Your task to perform on an android device: Search for logitech g910 on bestbuy.com, select the first entry, and add it to the cart. Image 0: 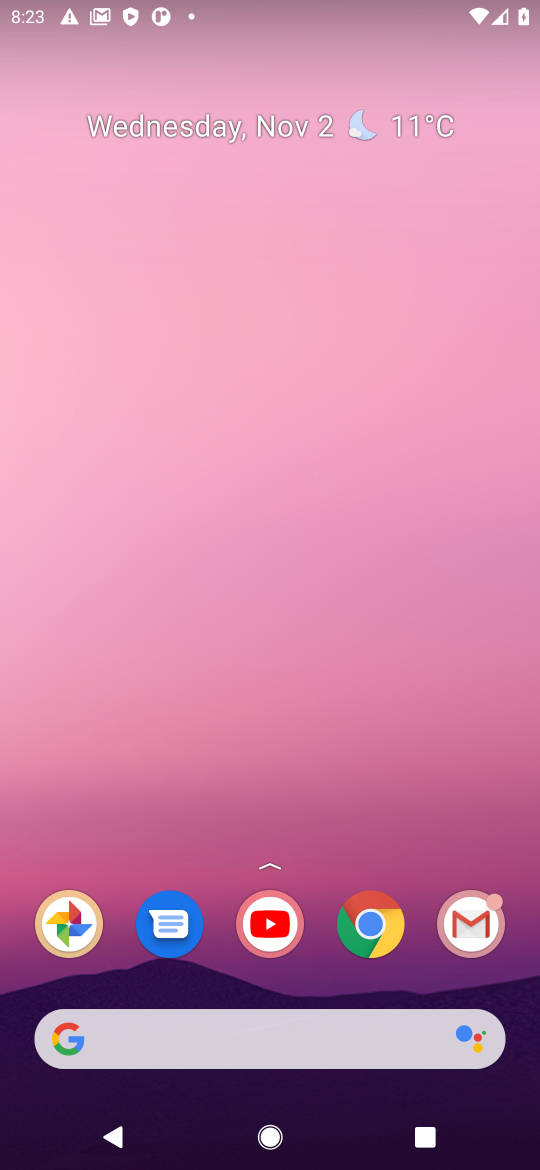
Step 0: click (372, 897)
Your task to perform on an android device: Search for logitech g910 on bestbuy.com, select the first entry, and add it to the cart. Image 1: 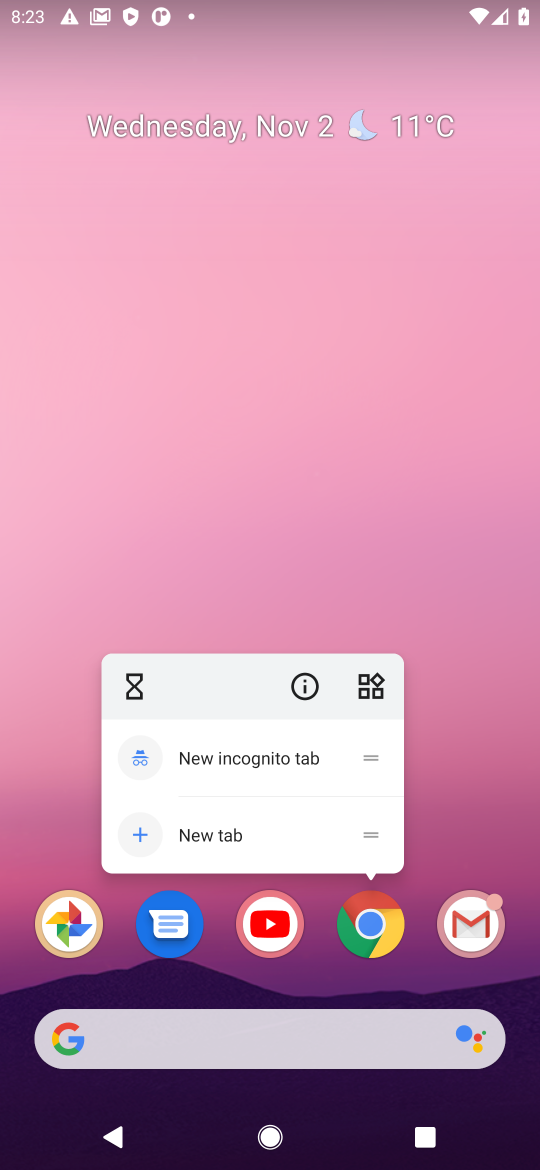
Step 1: click (358, 931)
Your task to perform on an android device: Search for logitech g910 on bestbuy.com, select the first entry, and add it to the cart. Image 2: 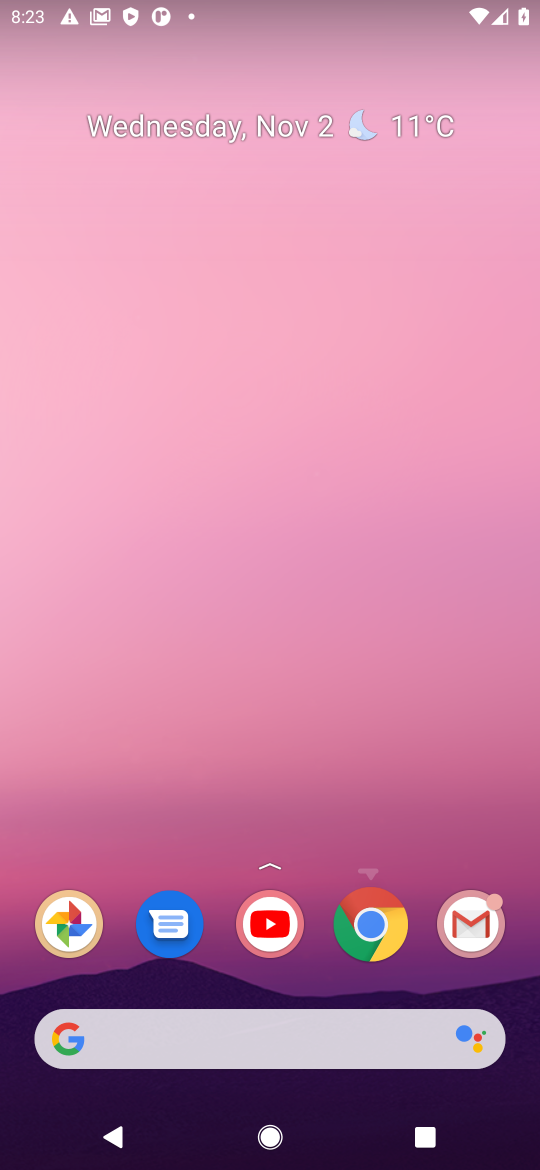
Step 2: click (364, 930)
Your task to perform on an android device: Search for logitech g910 on bestbuy.com, select the first entry, and add it to the cart. Image 3: 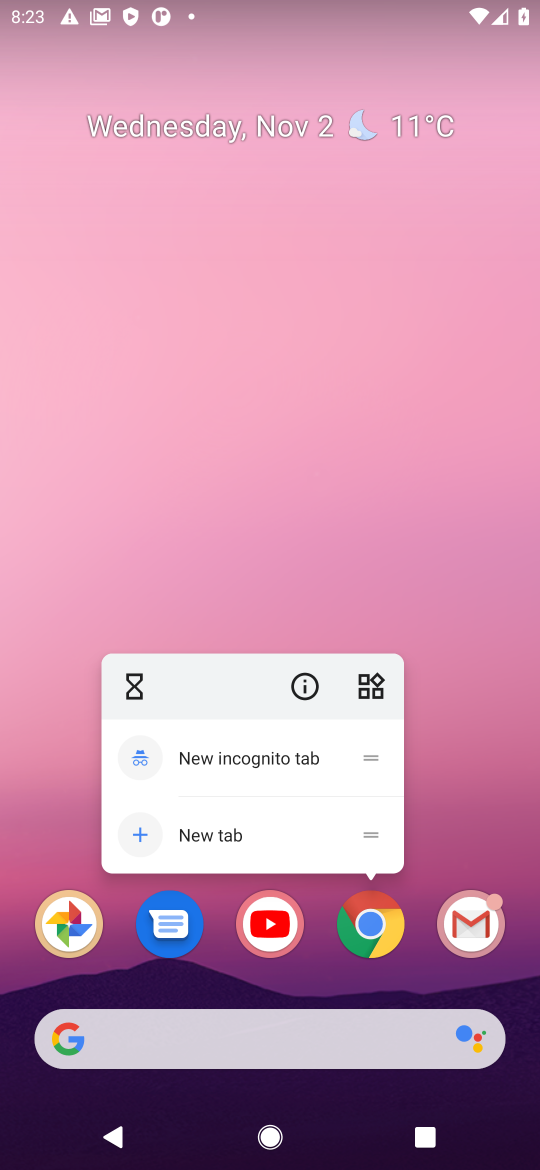
Step 3: click (364, 930)
Your task to perform on an android device: Search for logitech g910 on bestbuy.com, select the first entry, and add it to the cart. Image 4: 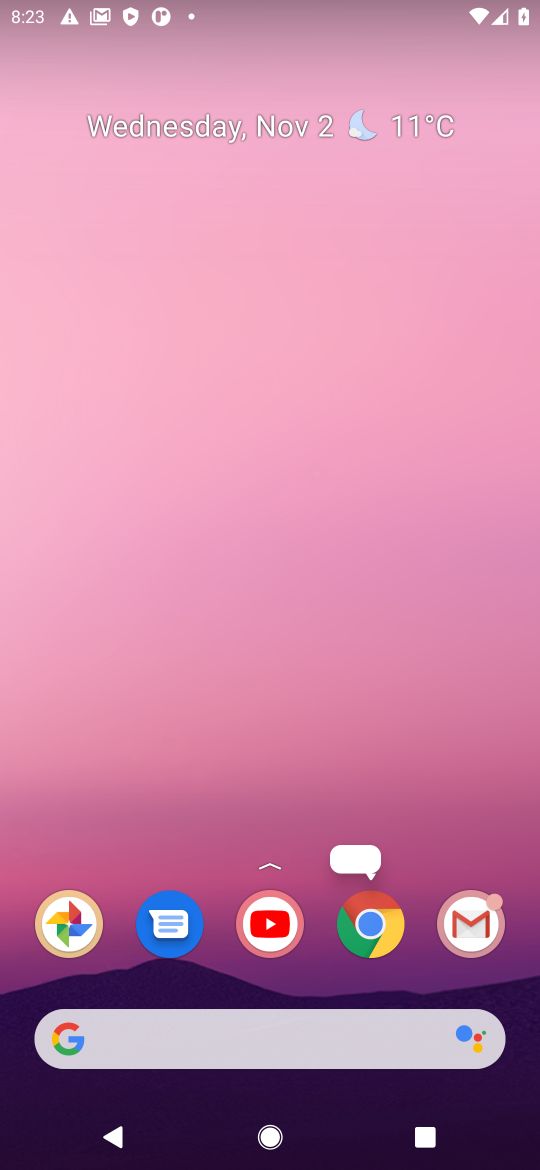
Step 4: click (364, 930)
Your task to perform on an android device: Search for logitech g910 on bestbuy.com, select the first entry, and add it to the cart. Image 5: 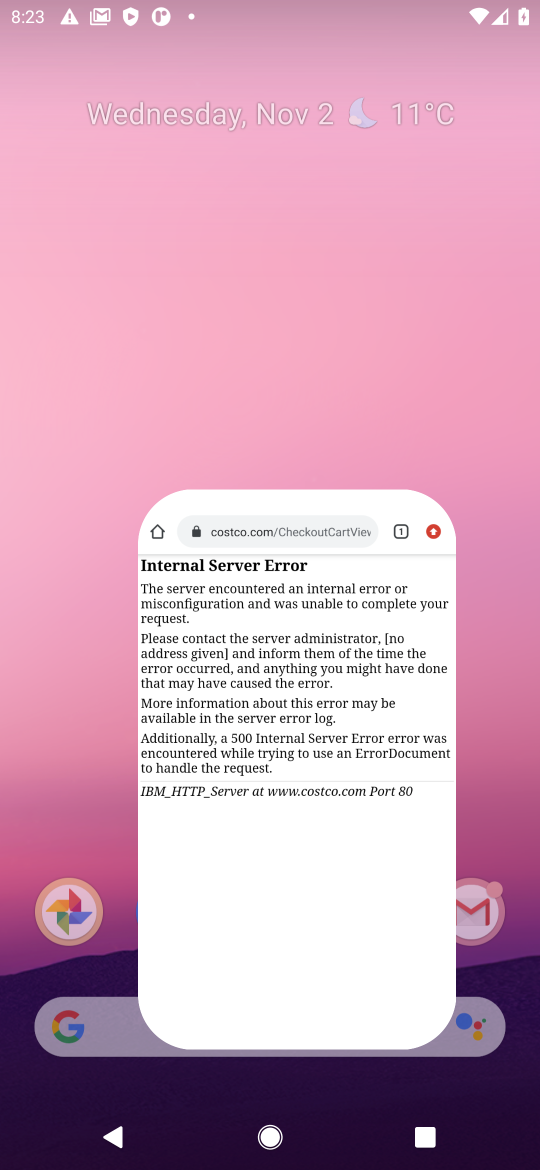
Step 5: click (359, 928)
Your task to perform on an android device: Search for logitech g910 on bestbuy.com, select the first entry, and add it to the cart. Image 6: 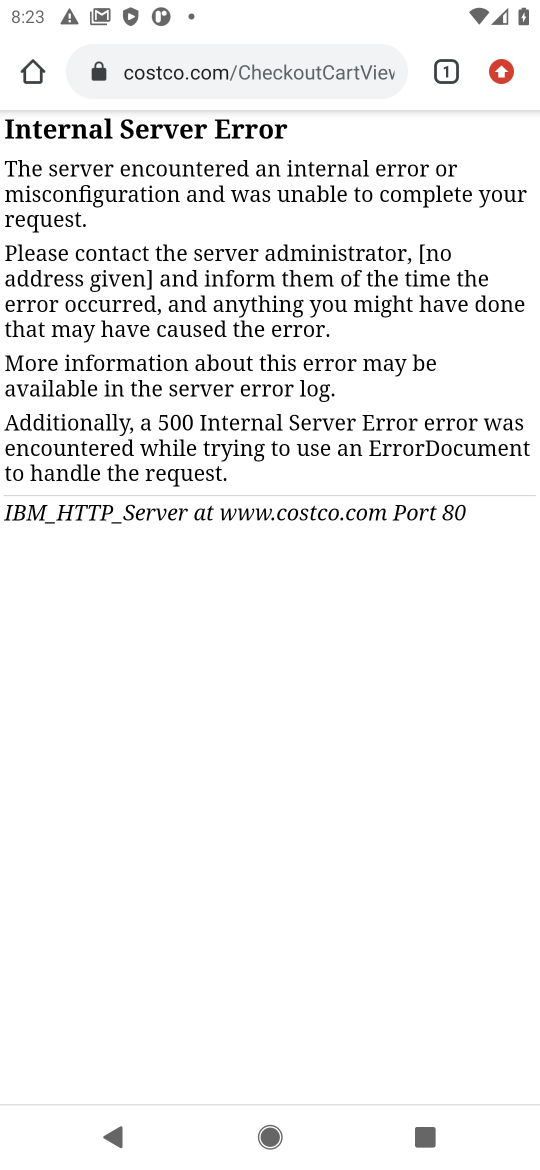
Step 6: click (220, 67)
Your task to perform on an android device: Search for logitech g910 on bestbuy.com, select the first entry, and add it to the cart. Image 7: 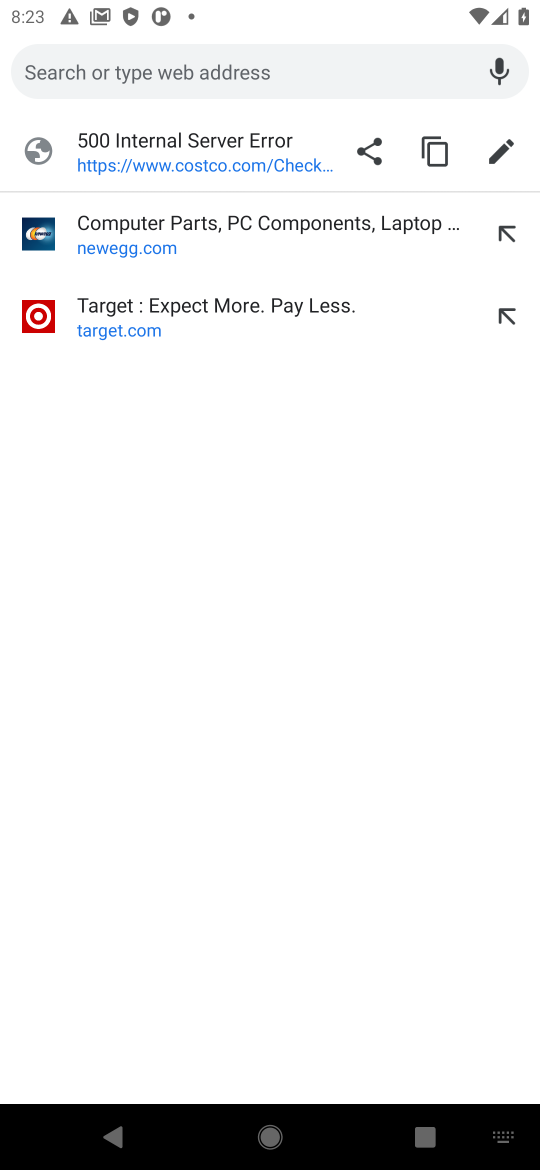
Step 7: type "bestbuy"
Your task to perform on an android device: Search for logitech g910 on bestbuy.com, select the first entry, and add it to the cart. Image 8: 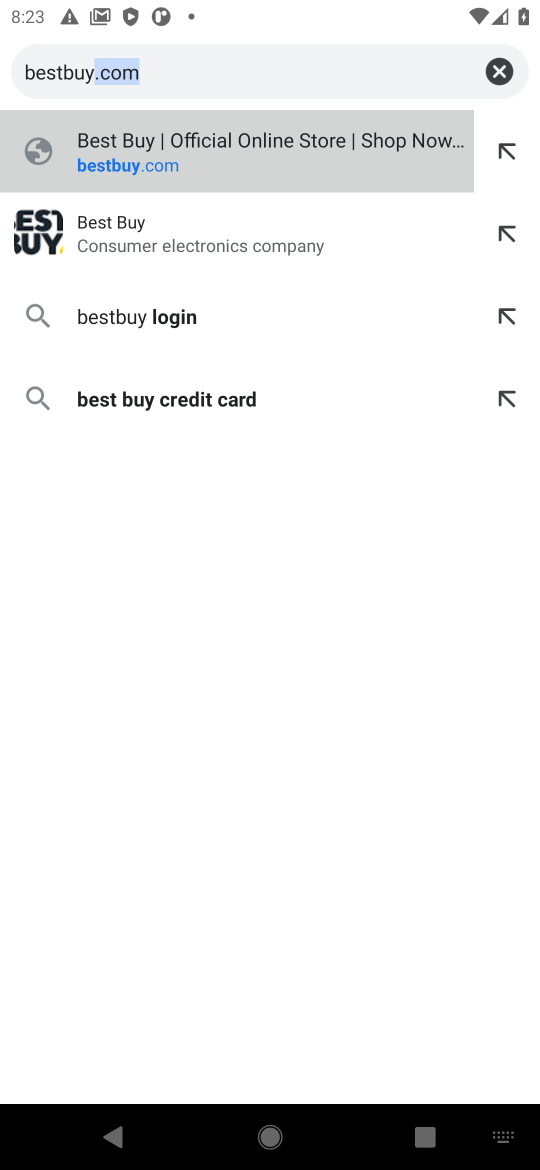
Step 8: type ""
Your task to perform on an android device: Search for logitech g910 on bestbuy.com, select the first entry, and add it to the cart. Image 9: 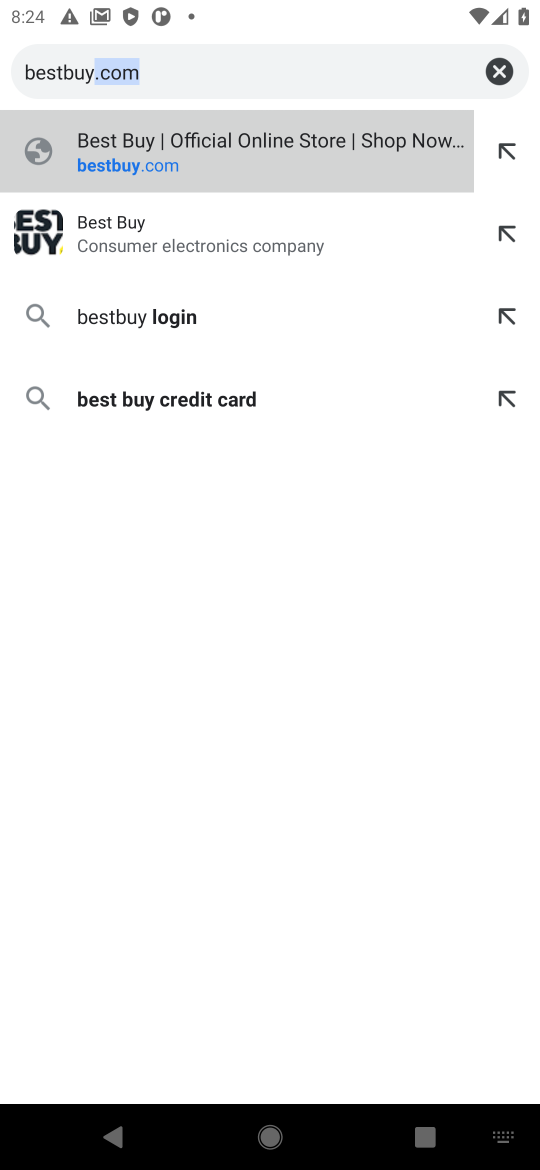
Step 9: click (92, 259)
Your task to perform on an android device: Search for logitech g910 on bestbuy.com, select the first entry, and add it to the cart. Image 10: 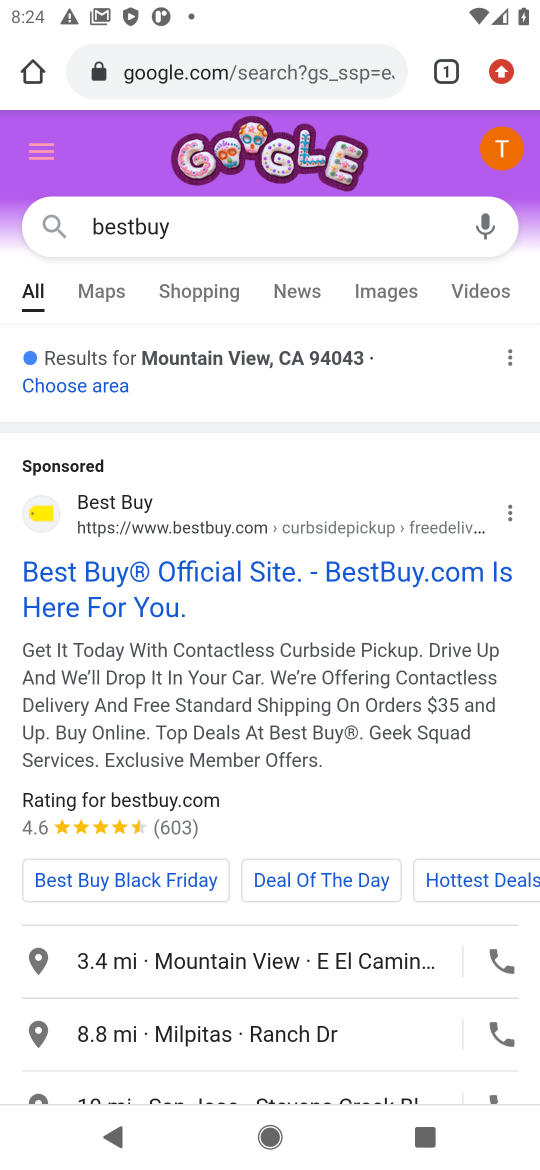
Step 10: drag from (179, 664) to (318, 1)
Your task to perform on an android device: Search for logitech g910 on bestbuy.com, select the first entry, and add it to the cart. Image 11: 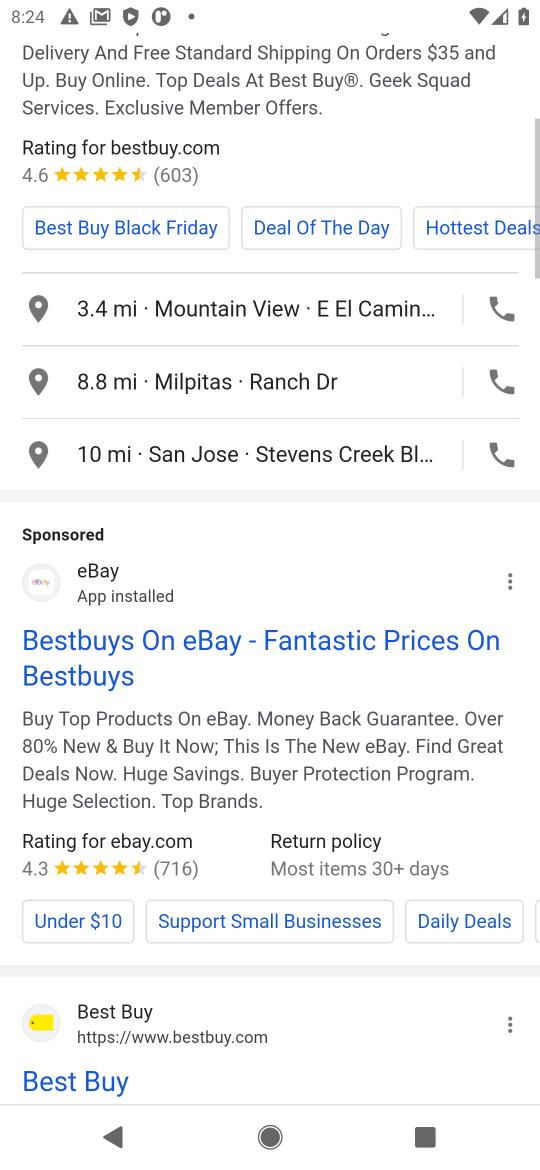
Step 11: click (113, 639)
Your task to perform on an android device: Search for logitech g910 on bestbuy.com, select the first entry, and add it to the cart. Image 12: 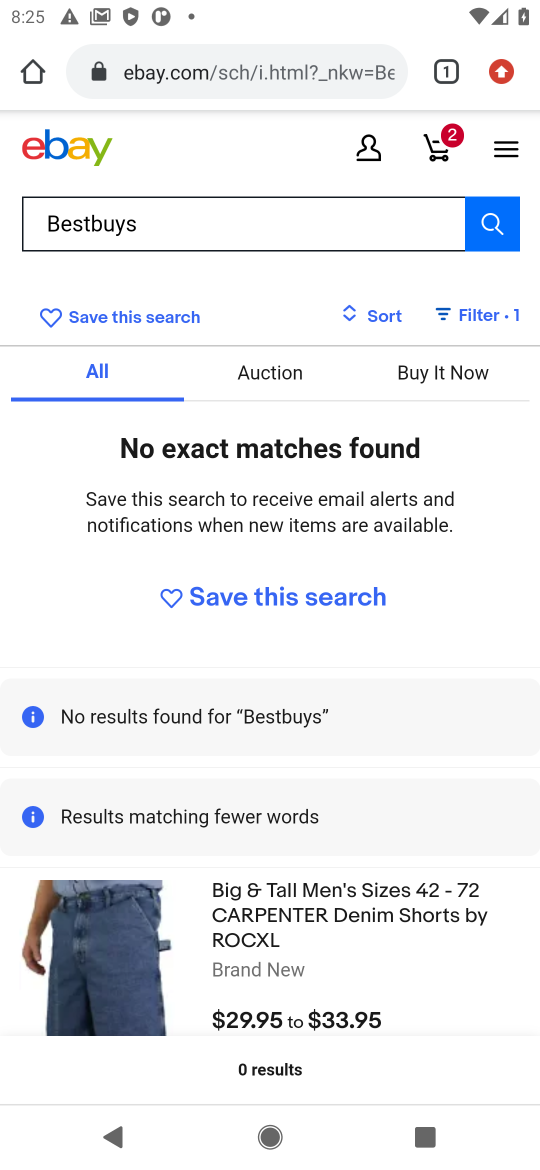
Step 12: click (281, 241)
Your task to perform on an android device: Search for logitech g910 on bestbuy.com, select the first entry, and add it to the cart. Image 13: 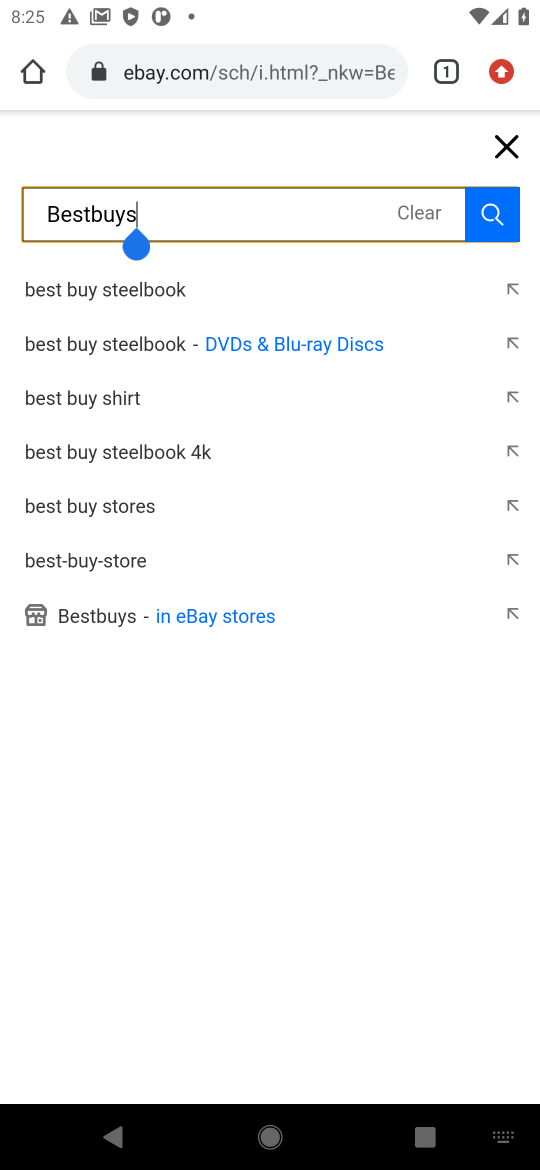
Step 13: click (423, 195)
Your task to perform on an android device: Search for logitech g910 on bestbuy.com, select the first entry, and add it to the cart. Image 14: 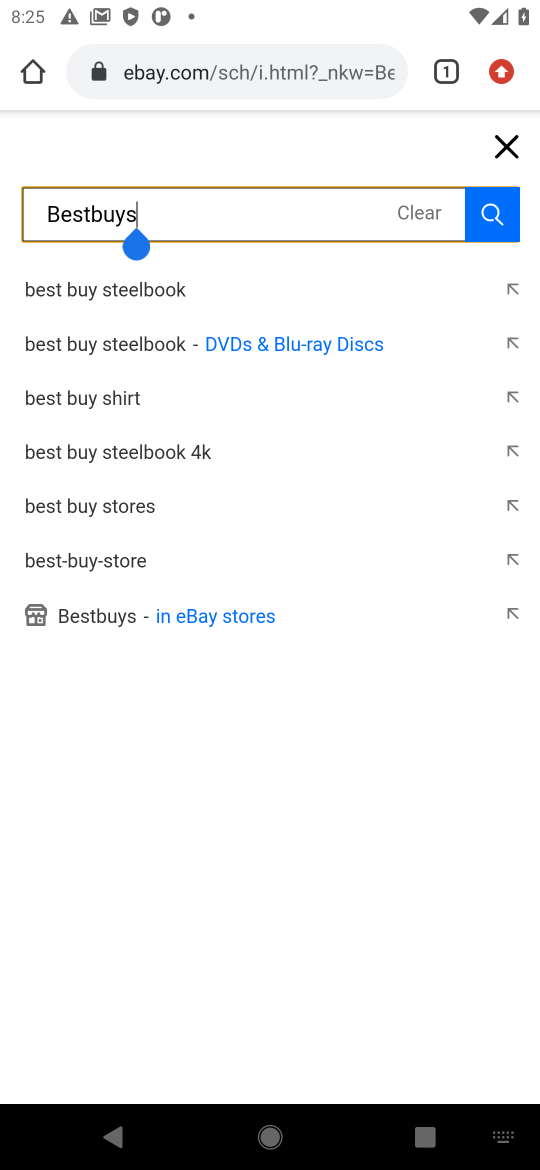
Step 14: click (415, 211)
Your task to perform on an android device: Search for logitech g910 on bestbuy.com, select the first entry, and add it to the cart. Image 15: 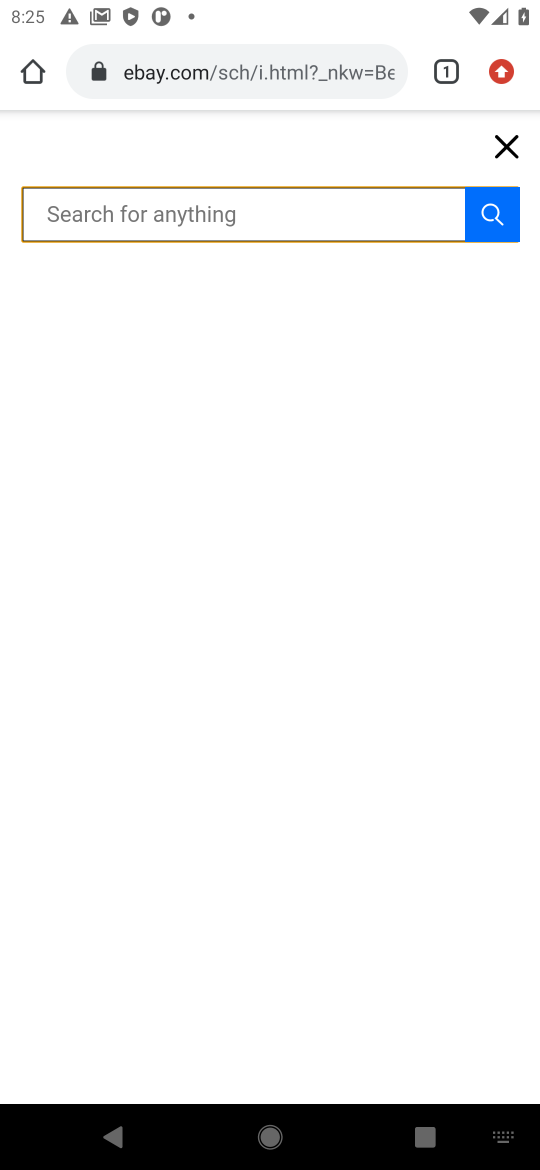
Step 15: click (415, 220)
Your task to perform on an android device: Search for logitech g910 on bestbuy.com, select the first entry, and add it to the cart. Image 16: 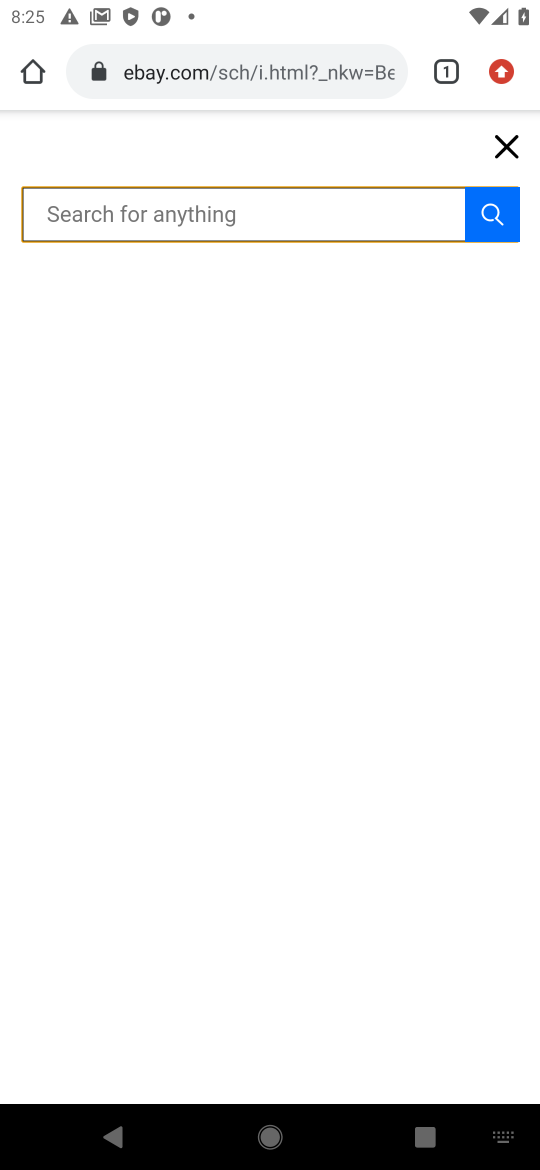
Step 16: type "logitech g 910"
Your task to perform on an android device: Search for logitech g910 on bestbuy.com, select the first entry, and add it to the cart. Image 17: 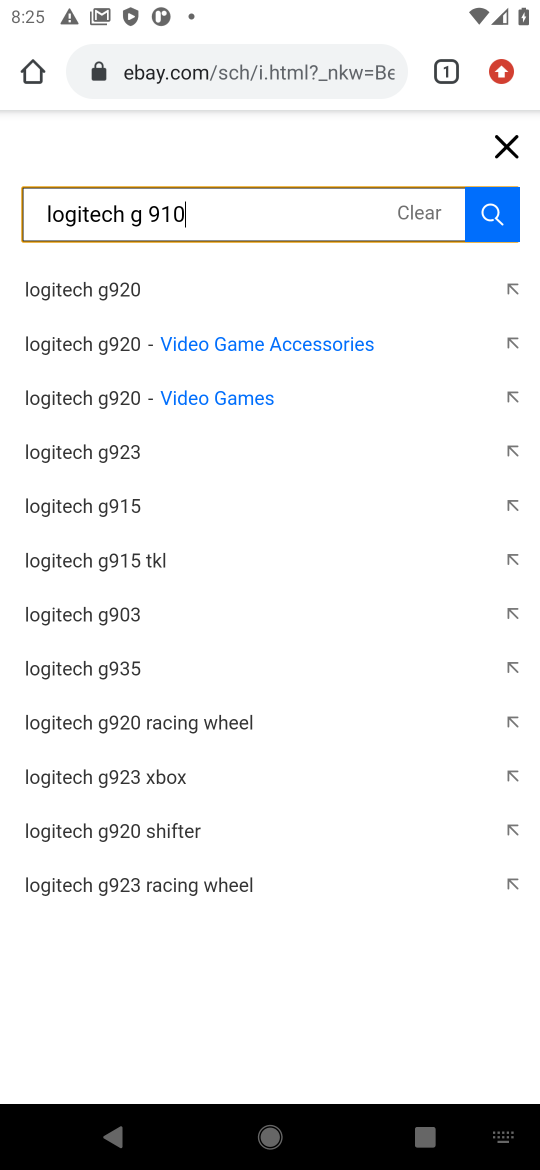
Step 17: type ""
Your task to perform on an android device: Search for logitech g910 on bestbuy.com, select the first entry, and add it to the cart. Image 18: 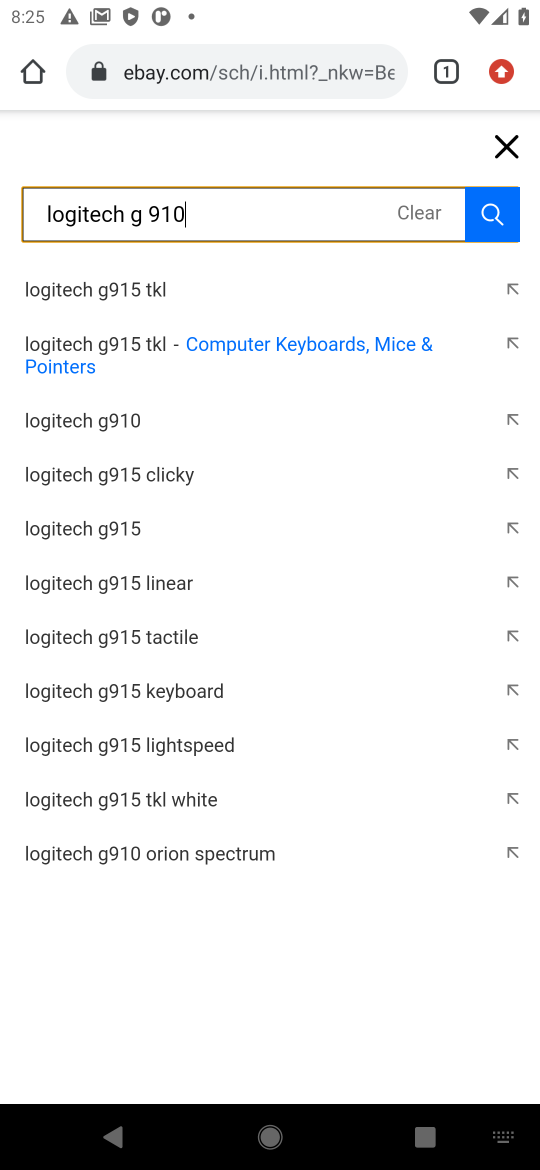
Step 18: click (57, 412)
Your task to perform on an android device: Search for logitech g910 on bestbuy.com, select the first entry, and add it to the cart. Image 19: 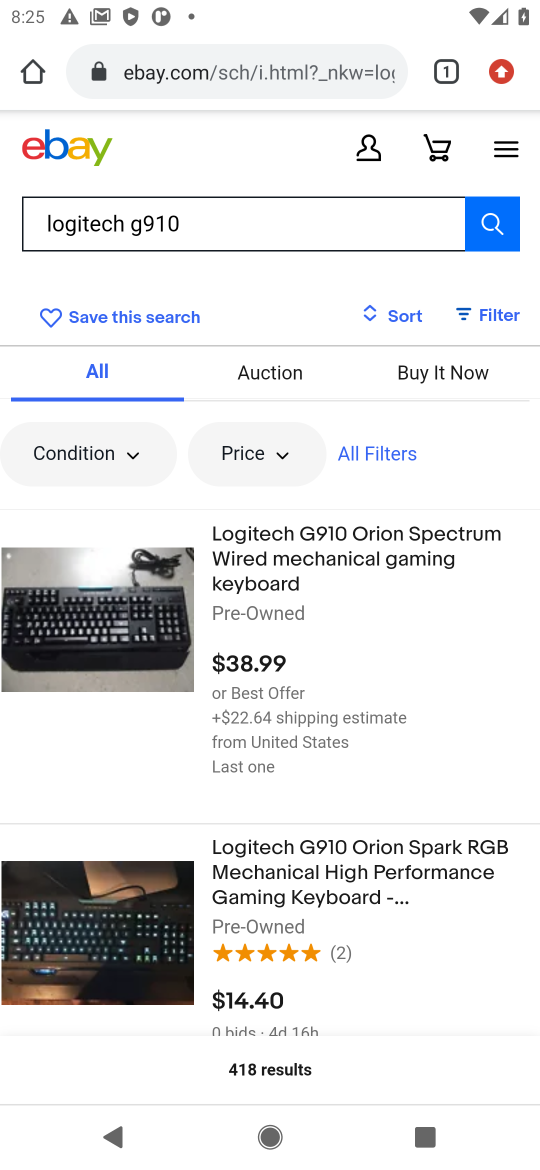
Step 19: click (60, 620)
Your task to perform on an android device: Search for logitech g910 on bestbuy.com, select the first entry, and add it to the cart. Image 20: 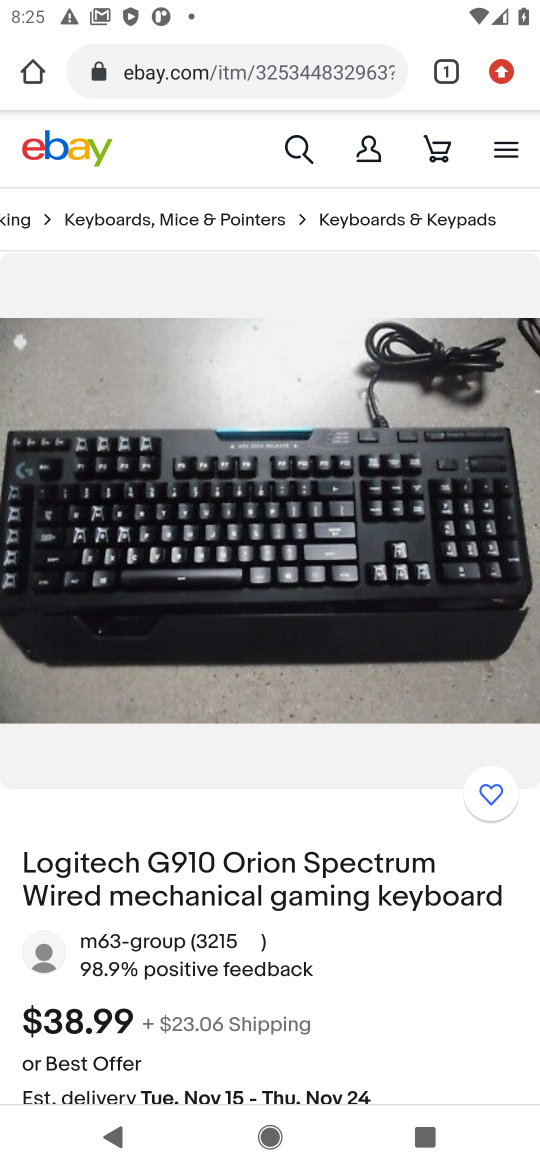
Step 20: drag from (227, 937) to (360, 247)
Your task to perform on an android device: Search for logitech g910 on bestbuy.com, select the first entry, and add it to the cart. Image 21: 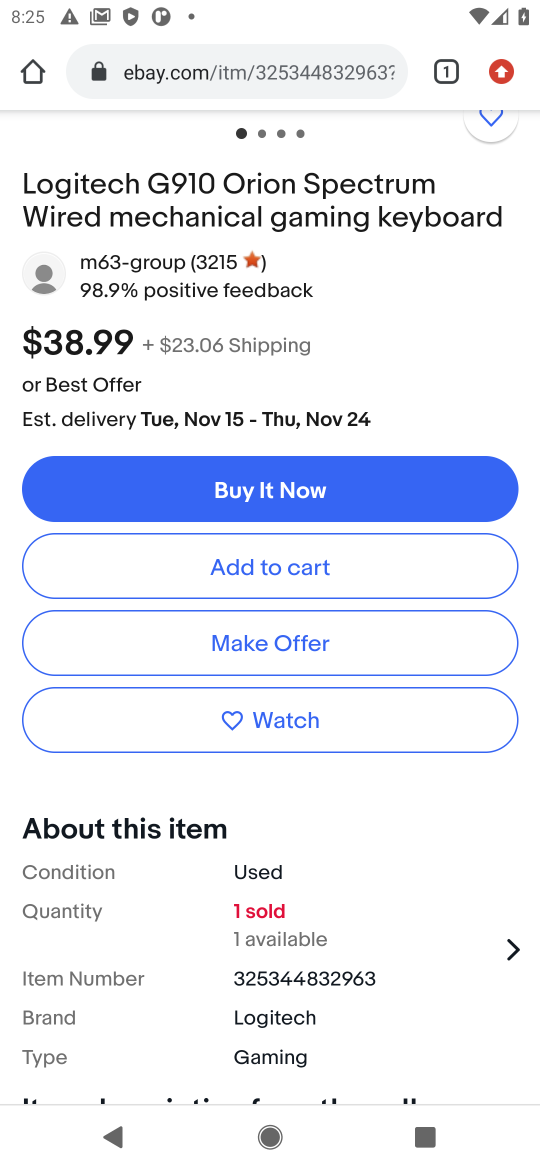
Step 21: click (273, 575)
Your task to perform on an android device: Search for logitech g910 on bestbuy.com, select the first entry, and add it to the cart. Image 22: 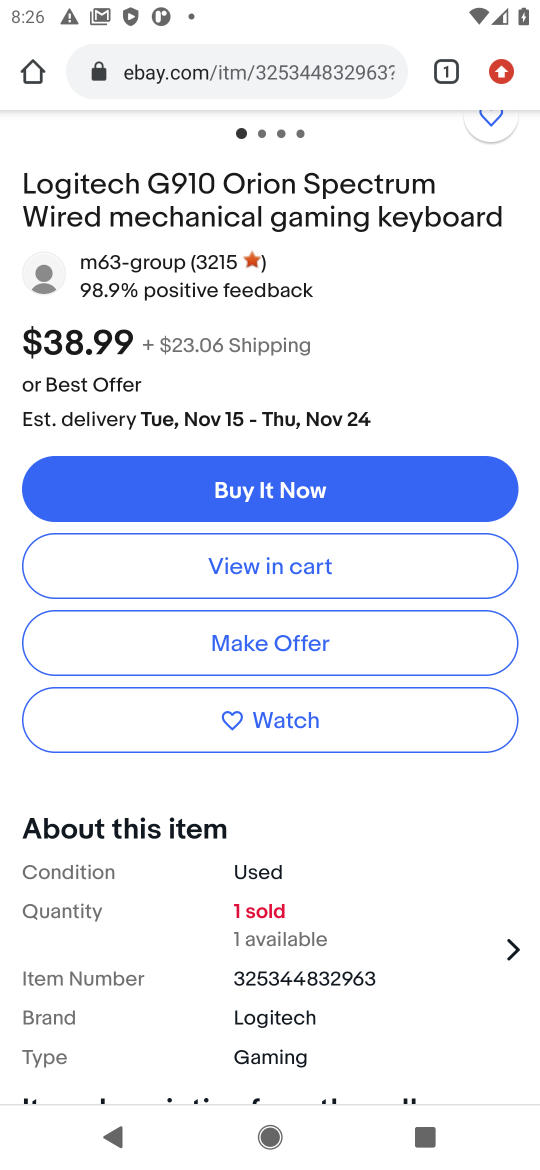
Step 22: click (296, 562)
Your task to perform on an android device: Search for logitech g910 on bestbuy.com, select the first entry, and add it to the cart. Image 23: 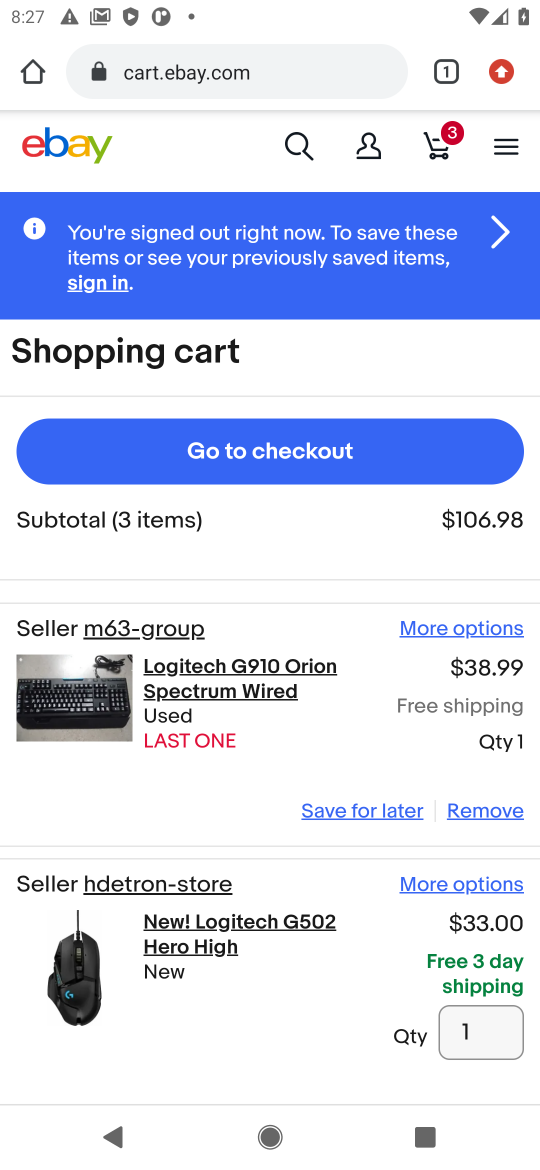
Step 23: task complete